Your task to perform on an android device: turn off location history Image 0: 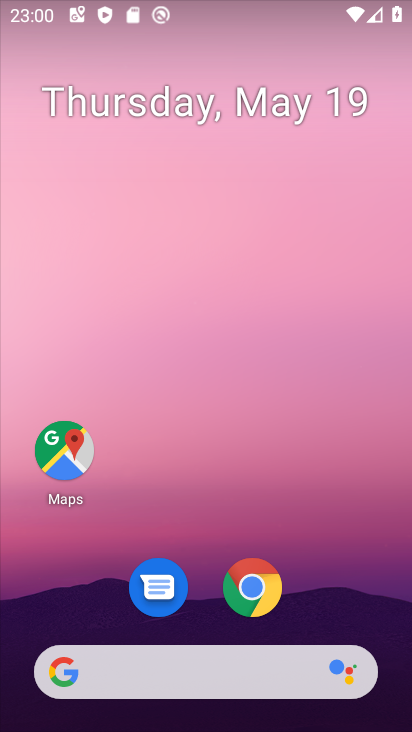
Step 0: drag from (260, 660) to (229, 225)
Your task to perform on an android device: turn off location history Image 1: 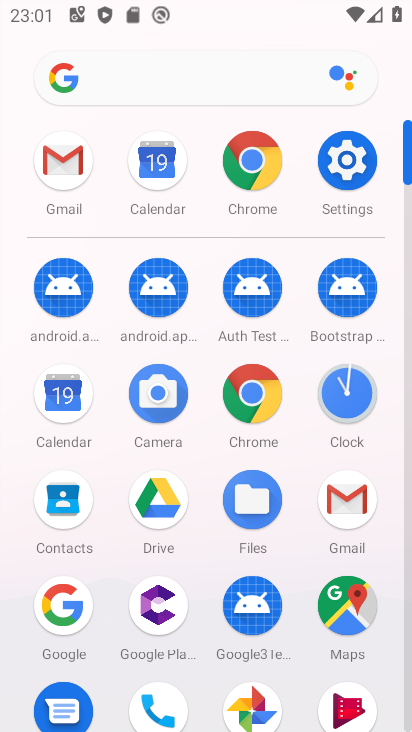
Step 1: click (340, 163)
Your task to perform on an android device: turn off location history Image 2: 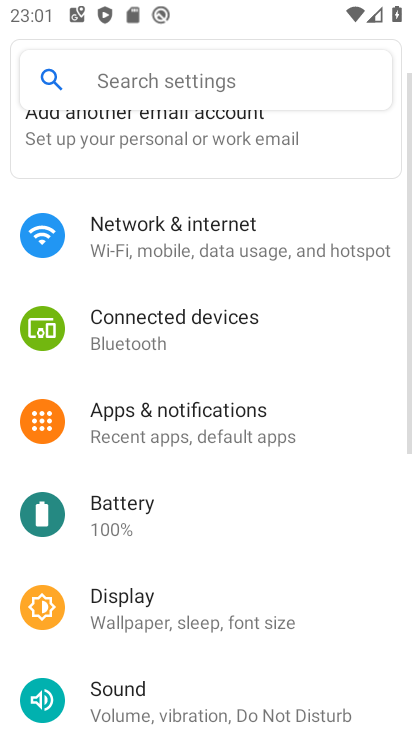
Step 2: click (134, 73)
Your task to perform on an android device: turn off location history Image 3: 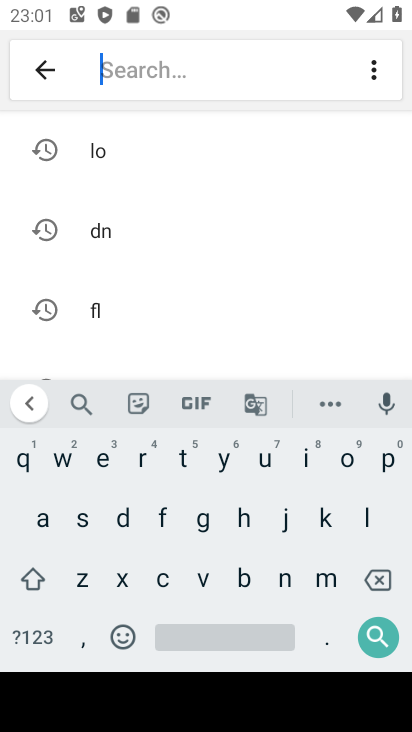
Step 3: click (373, 513)
Your task to perform on an android device: turn off location history Image 4: 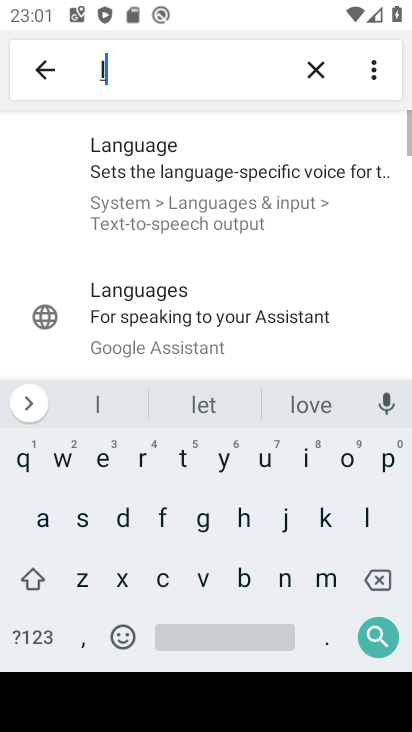
Step 4: click (335, 454)
Your task to perform on an android device: turn off location history Image 5: 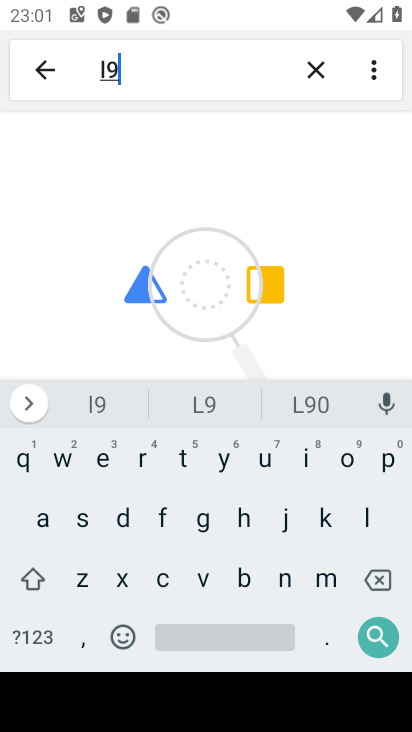
Step 5: click (384, 582)
Your task to perform on an android device: turn off location history Image 6: 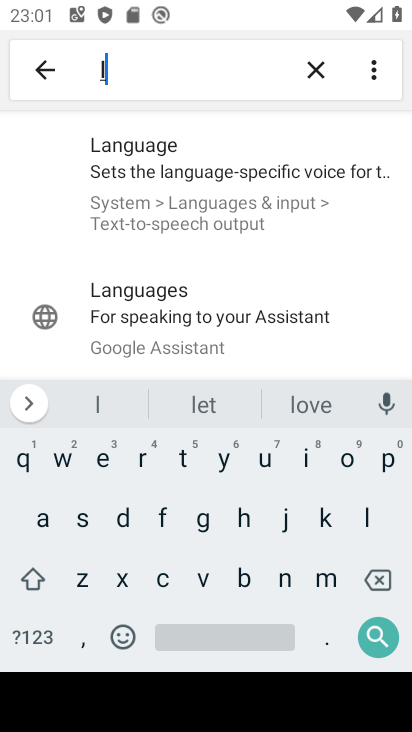
Step 6: click (336, 461)
Your task to perform on an android device: turn off location history Image 7: 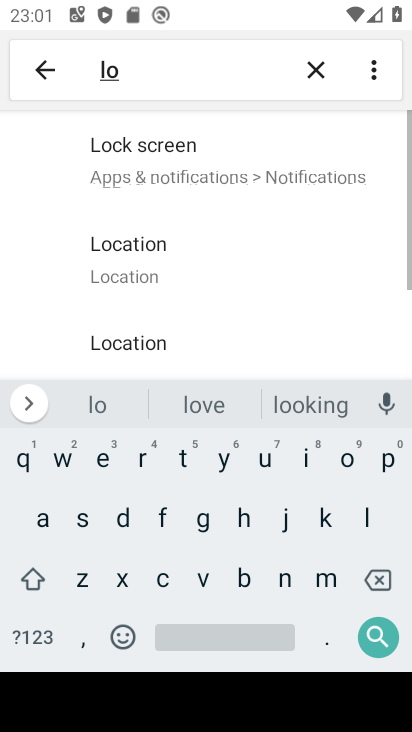
Step 7: click (137, 283)
Your task to perform on an android device: turn off location history Image 8: 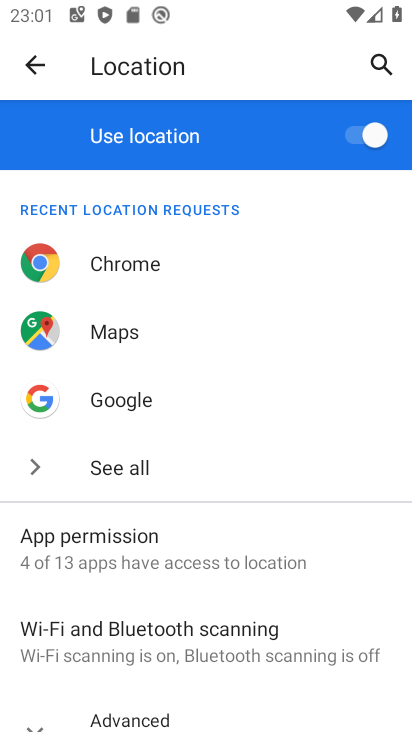
Step 8: drag from (63, 567) to (109, 296)
Your task to perform on an android device: turn off location history Image 9: 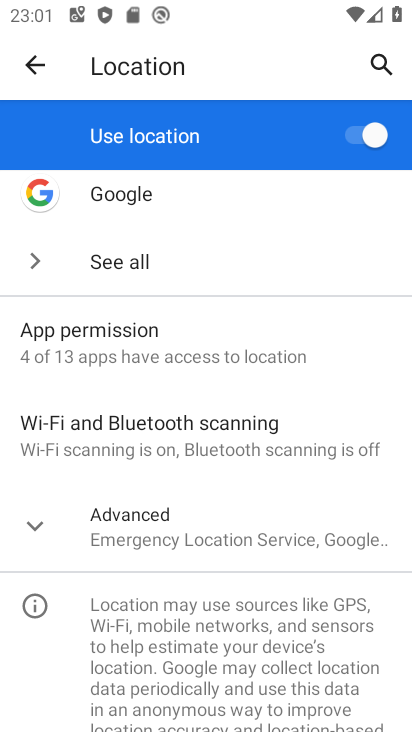
Step 9: click (18, 526)
Your task to perform on an android device: turn off location history Image 10: 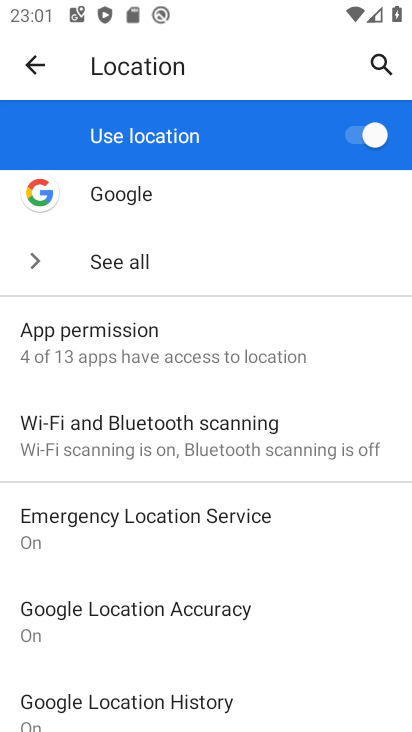
Step 10: click (149, 687)
Your task to perform on an android device: turn off location history Image 11: 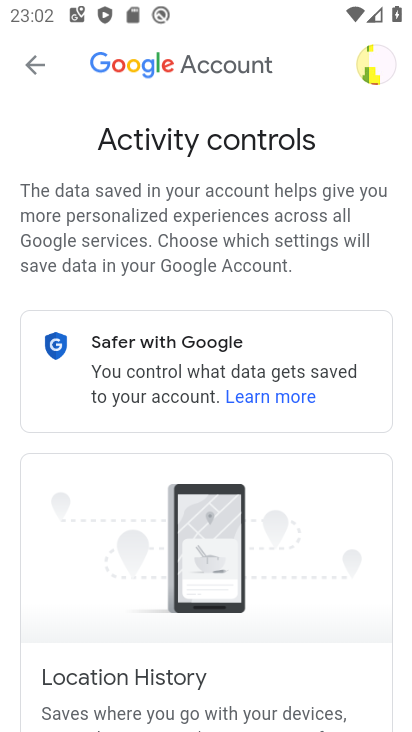
Step 11: task complete